Your task to perform on an android device: star an email in the gmail app Image 0: 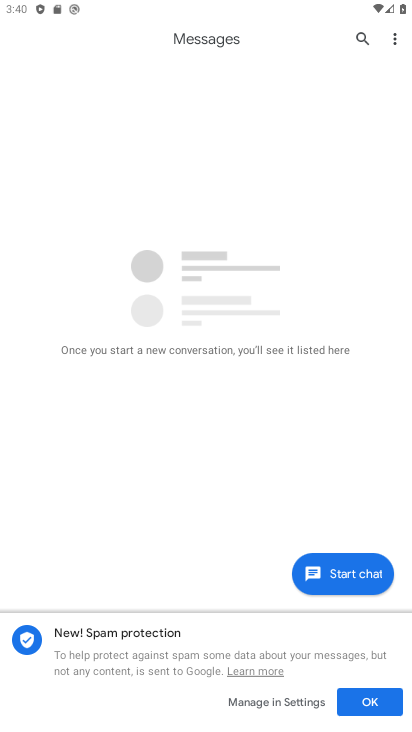
Step 0: press back button
Your task to perform on an android device: star an email in the gmail app Image 1: 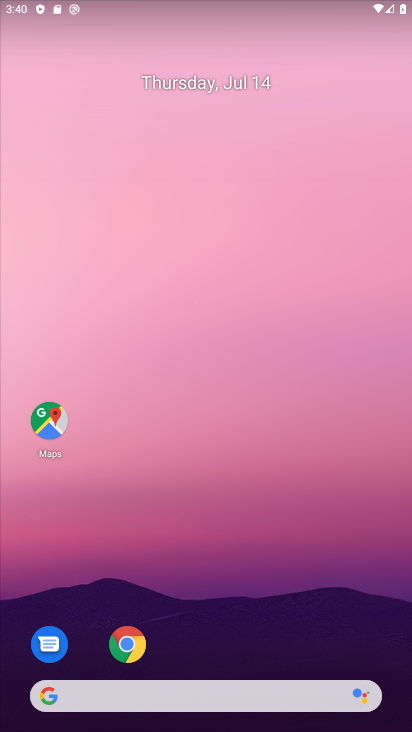
Step 1: drag from (216, 652) to (240, 7)
Your task to perform on an android device: star an email in the gmail app Image 2: 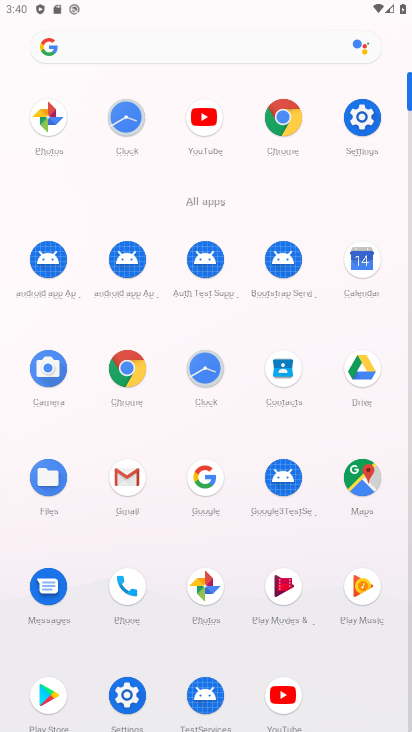
Step 2: click (126, 477)
Your task to perform on an android device: star an email in the gmail app Image 3: 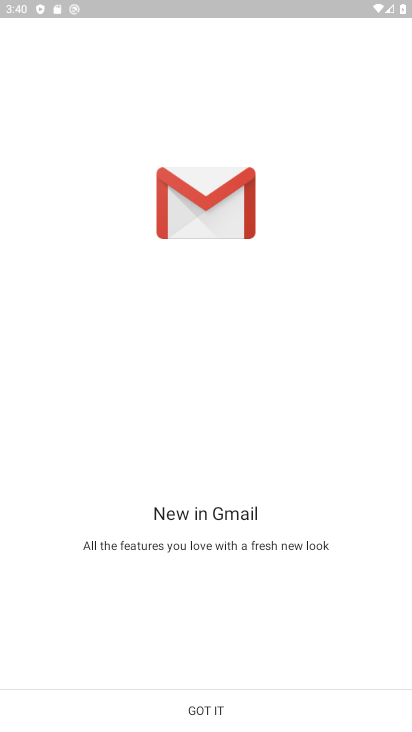
Step 3: click (202, 712)
Your task to perform on an android device: star an email in the gmail app Image 4: 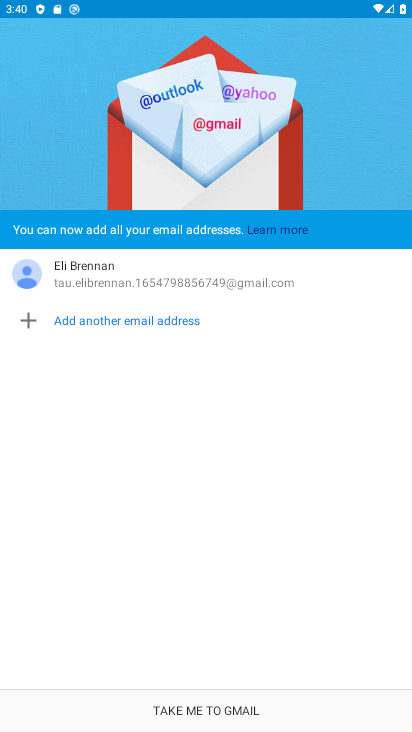
Step 4: click (180, 706)
Your task to perform on an android device: star an email in the gmail app Image 5: 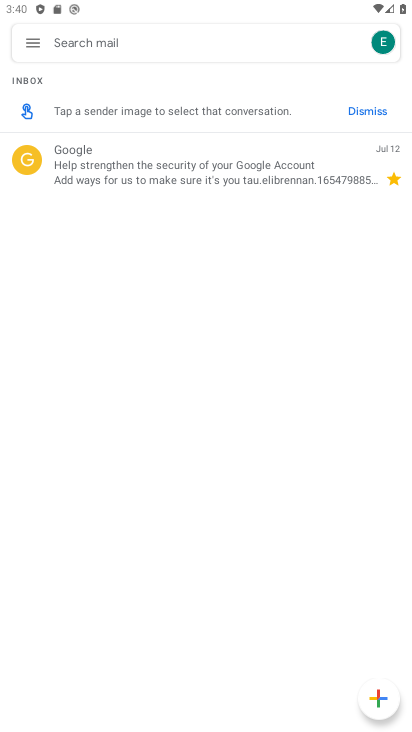
Step 5: task complete